Your task to perform on an android device: Search for floor lamps on article.com Image 0: 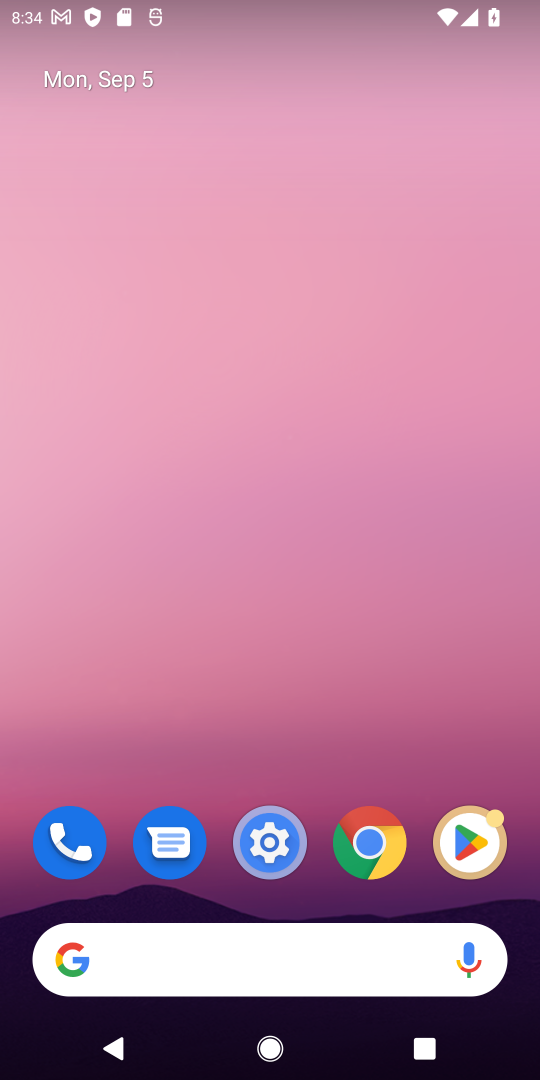
Step 0: drag from (268, 373) to (248, 132)
Your task to perform on an android device: Search for floor lamps on article.com Image 1: 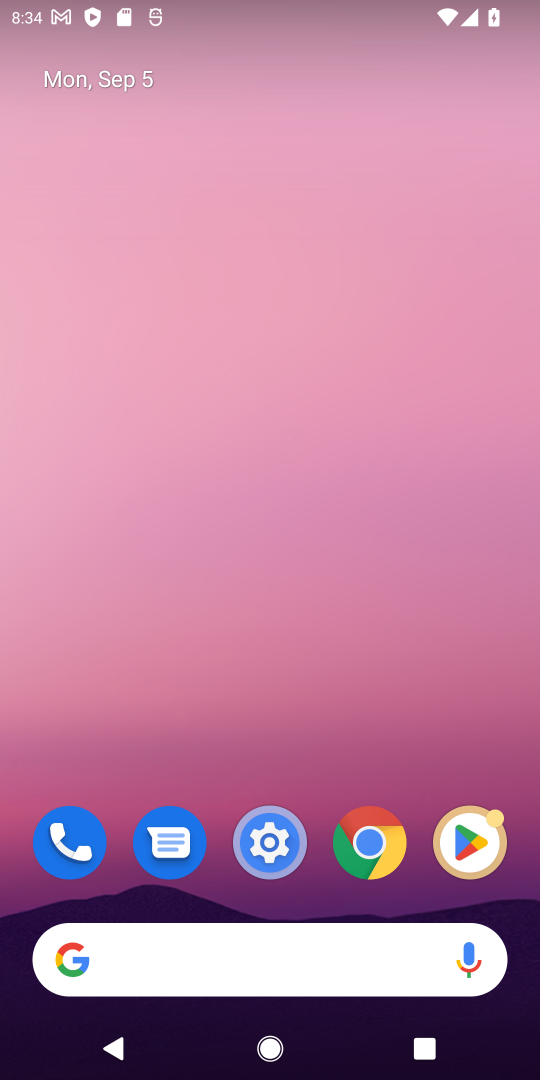
Step 1: drag from (416, 804) to (369, 211)
Your task to perform on an android device: Search for floor lamps on article.com Image 2: 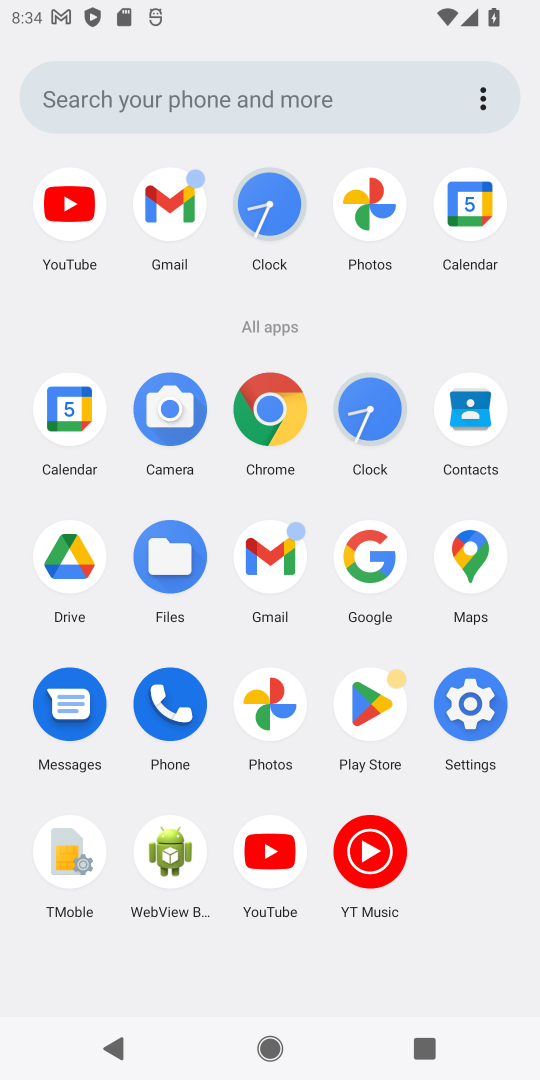
Step 2: click (277, 412)
Your task to perform on an android device: Search for floor lamps on article.com Image 3: 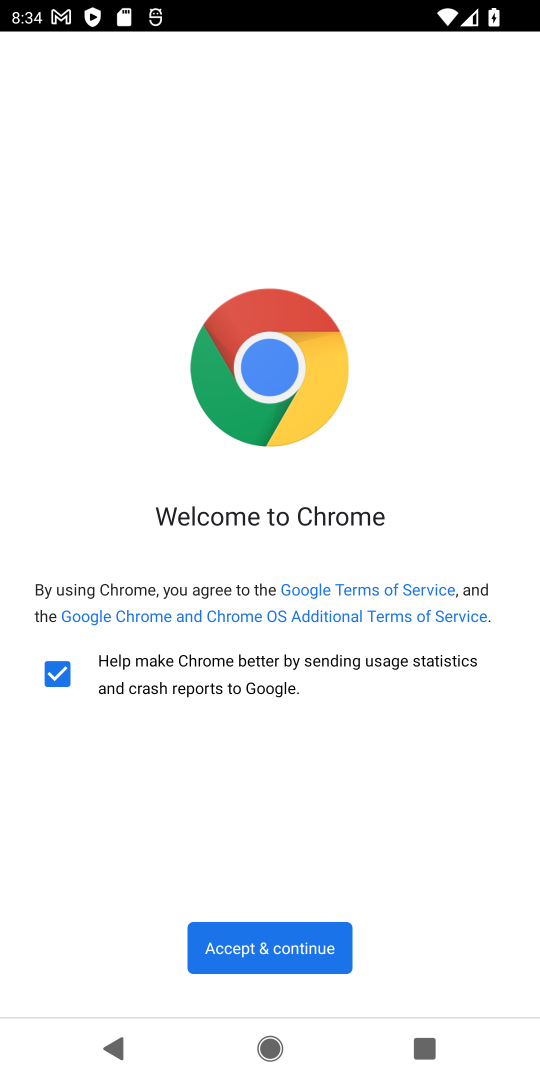
Step 3: click (315, 947)
Your task to perform on an android device: Search for floor lamps on article.com Image 4: 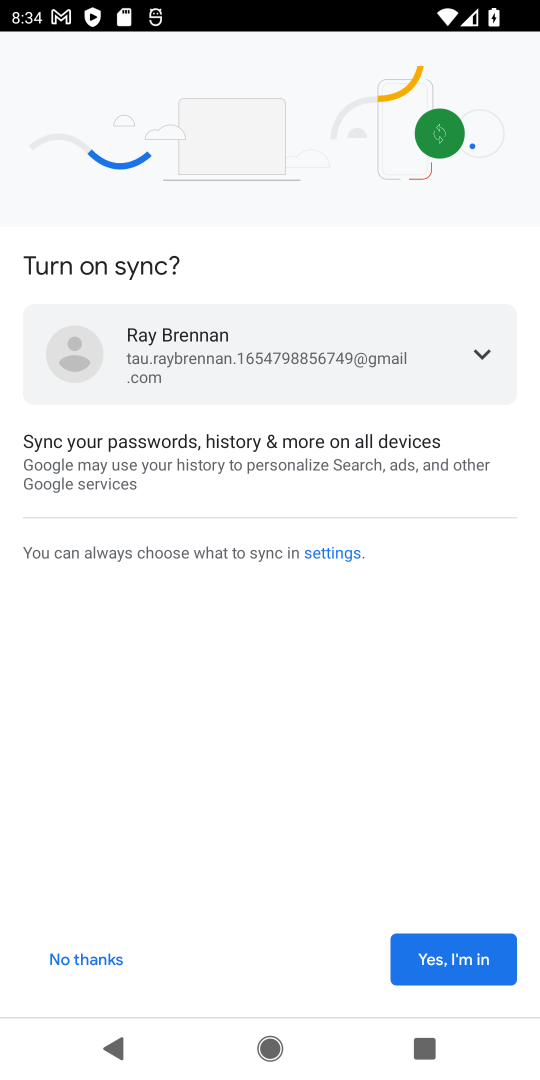
Step 4: click (416, 964)
Your task to perform on an android device: Search for floor lamps on article.com Image 5: 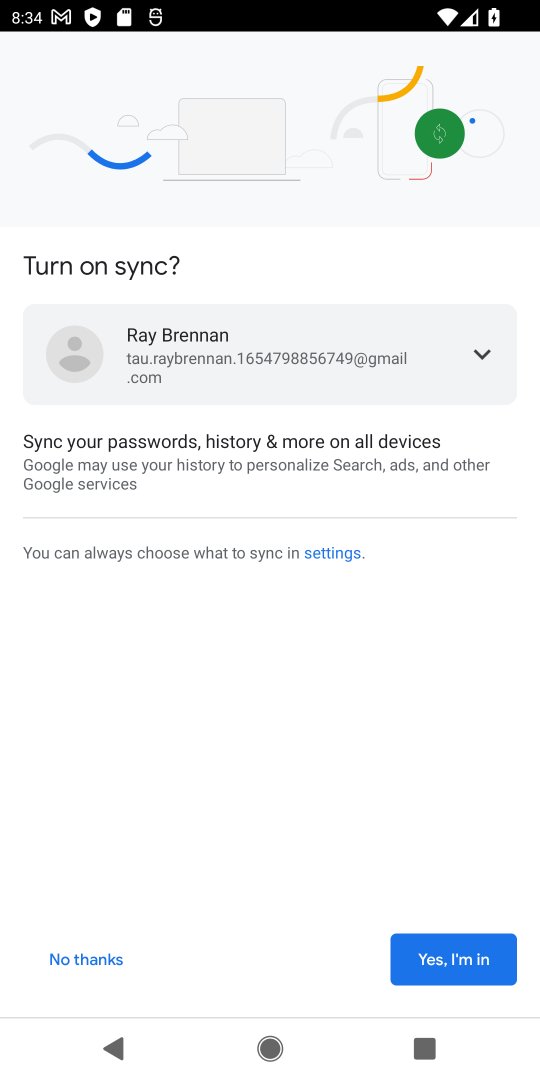
Step 5: click (436, 960)
Your task to perform on an android device: Search for floor lamps on article.com Image 6: 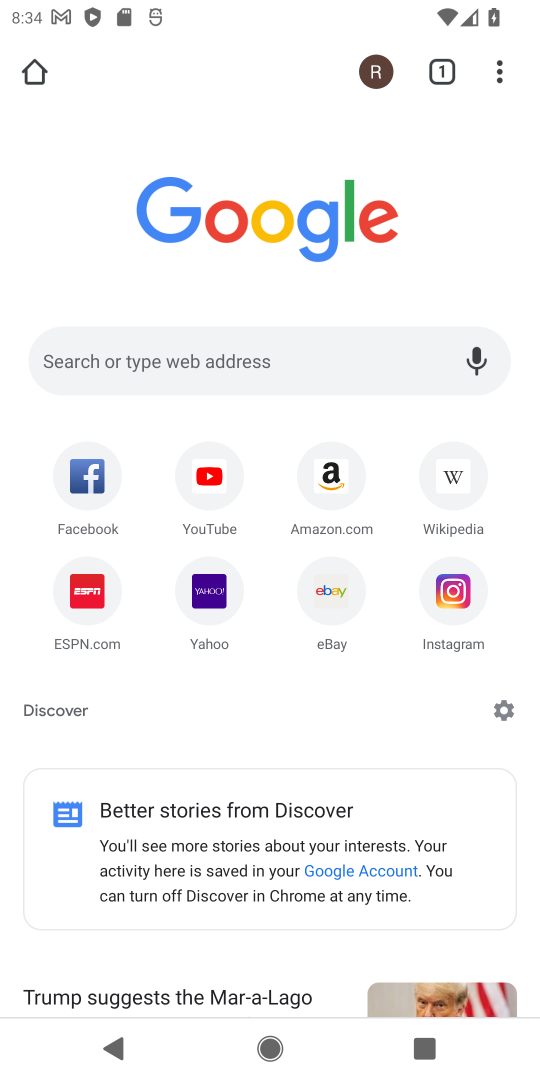
Step 6: click (289, 353)
Your task to perform on an android device: Search for floor lamps on article.com Image 7: 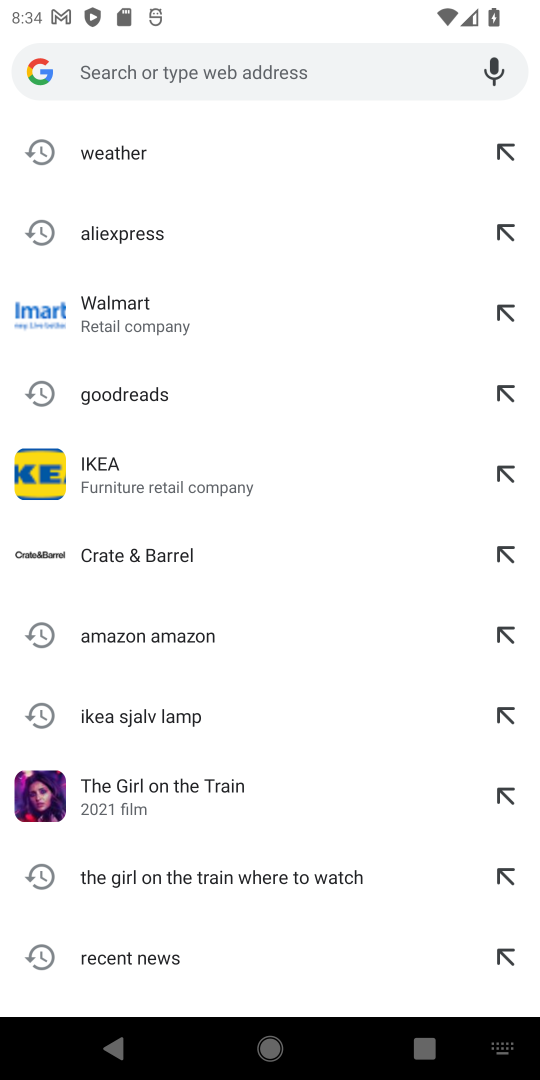
Step 7: type "floor lamps on artifle.com"
Your task to perform on an android device: Search for floor lamps on article.com Image 8: 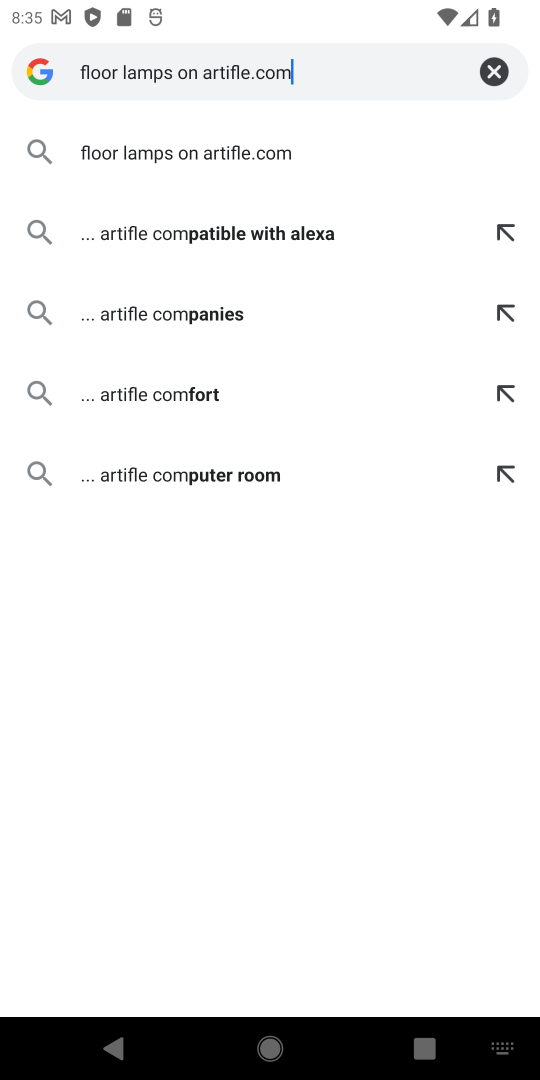
Step 8: press enter
Your task to perform on an android device: Search for floor lamps on article.com Image 9: 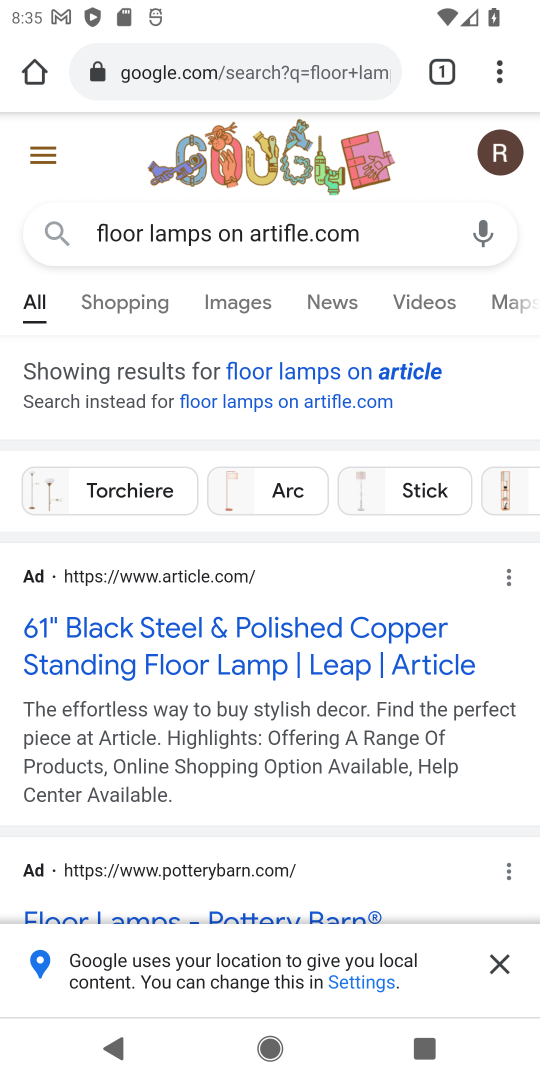
Step 9: drag from (269, 630) to (327, 259)
Your task to perform on an android device: Search for floor lamps on article.com Image 10: 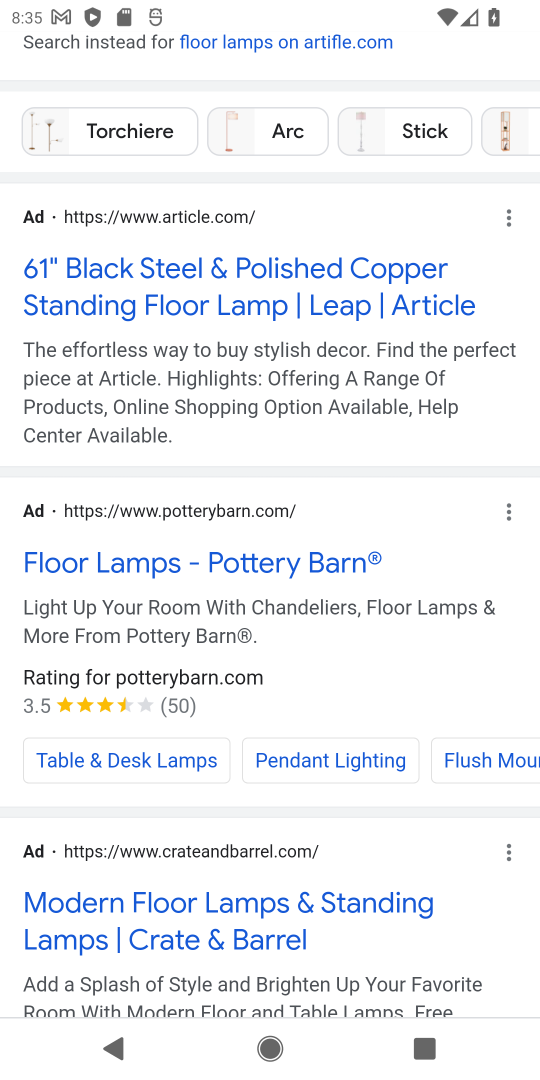
Step 10: drag from (392, 912) to (325, 235)
Your task to perform on an android device: Search for floor lamps on article.com Image 11: 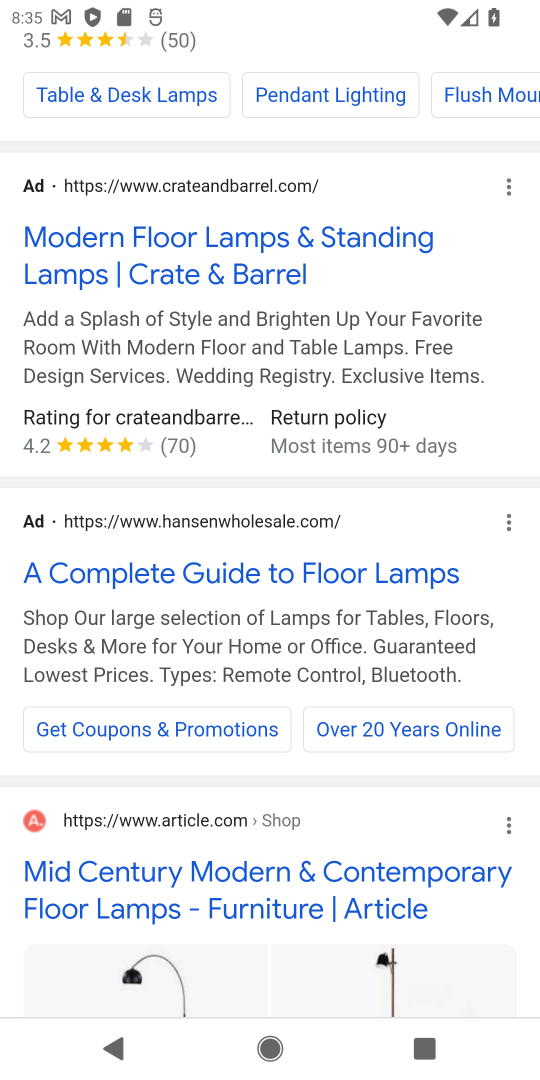
Step 11: click (312, 872)
Your task to perform on an android device: Search for floor lamps on article.com Image 12: 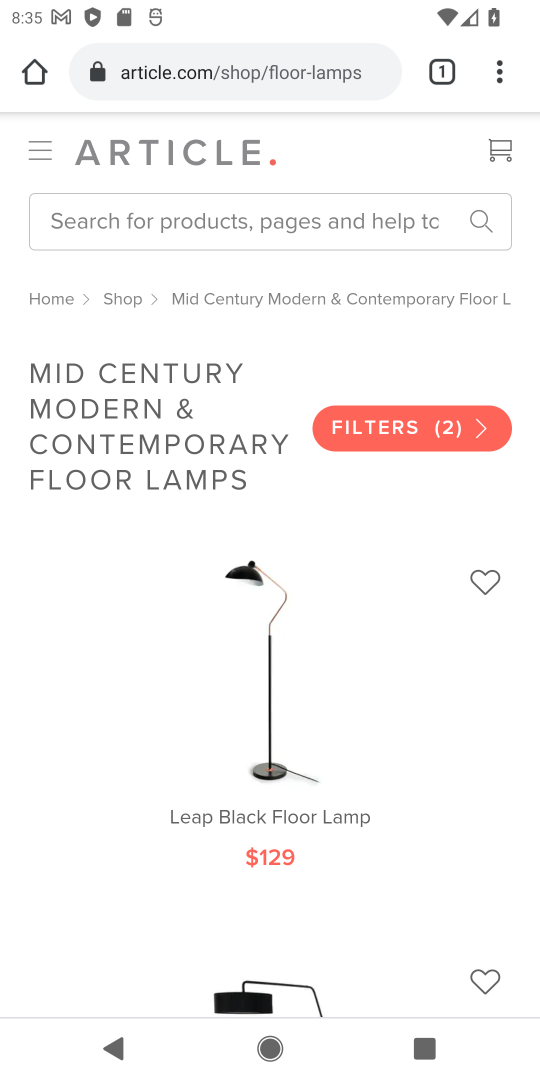
Step 12: click (269, 230)
Your task to perform on an android device: Search for floor lamps on article.com Image 13: 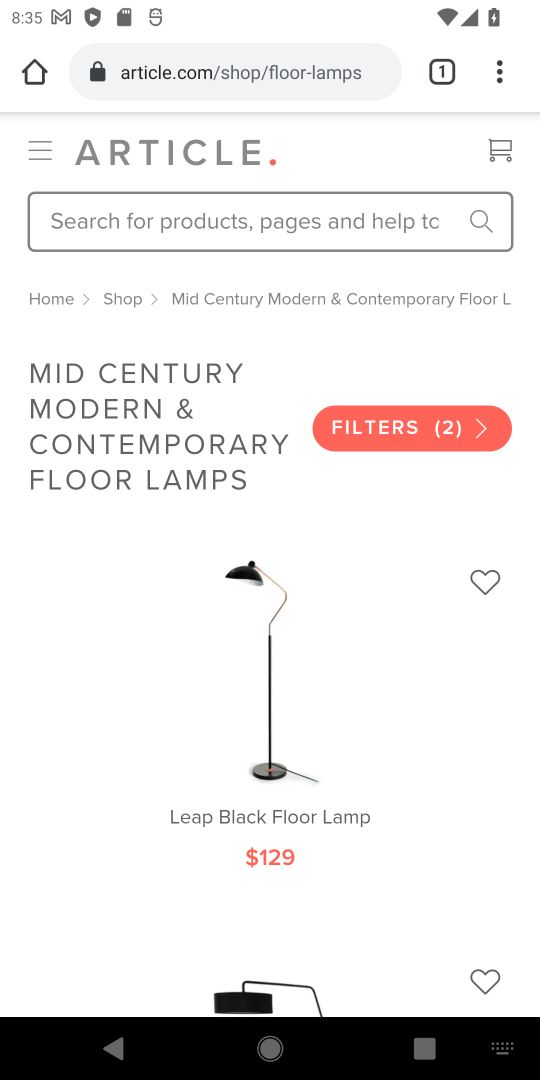
Step 13: type "floor lamps"
Your task to perform on an android device: Search for floor lamps on article.com Image 14: 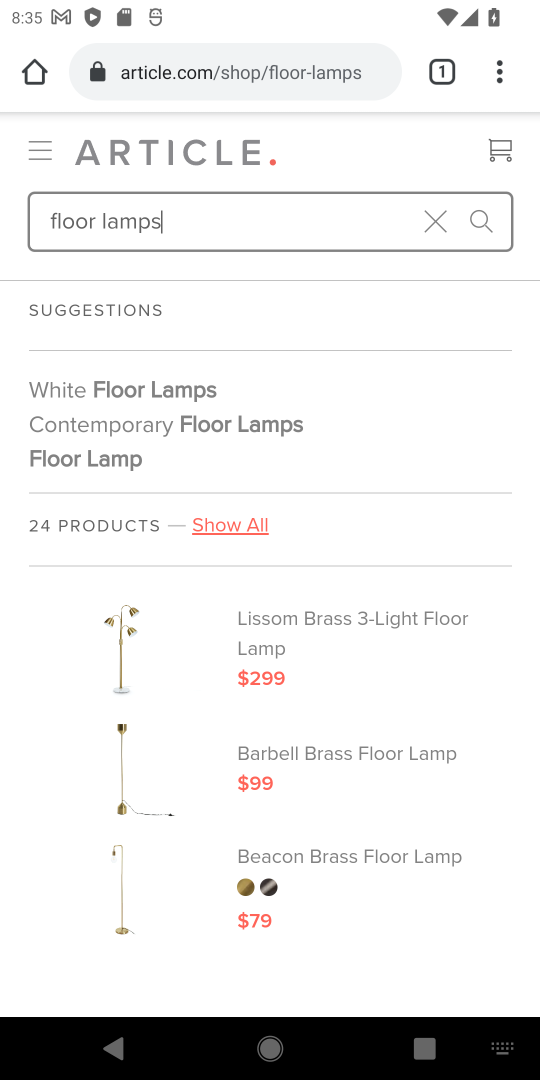
Step 14: press enter
Your task to perform on an android device: Search for floor lamps on article.com Image 15: 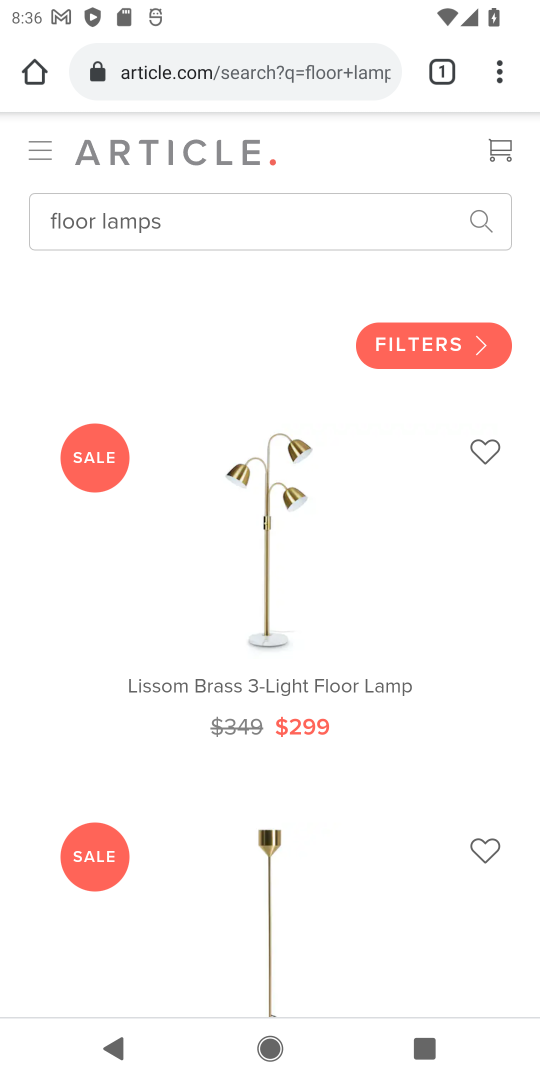
Step 15: task complete